Your task to perform on an android device: Open the phone app and click the voicemail tab. Image 0: 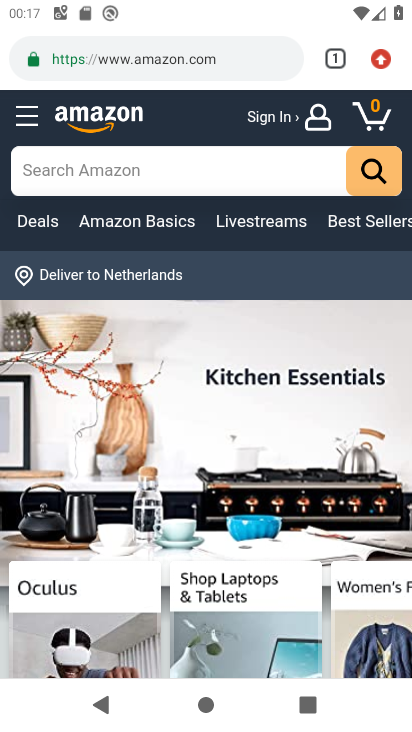
Step 0: press home button
Your task to perform on an android device: Open the phone app and click the voicemail tab. Image 1: 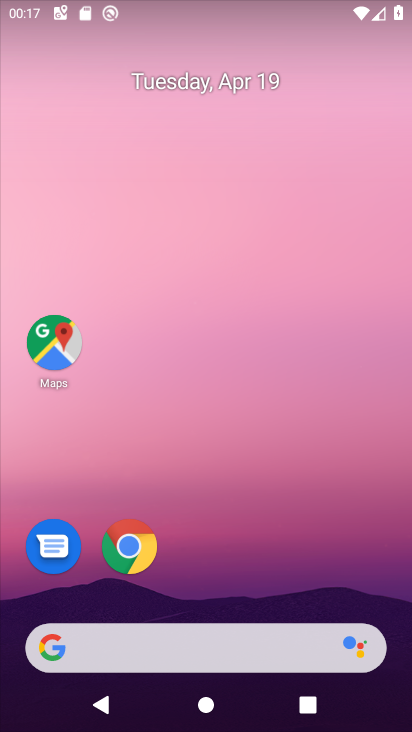
Step 1: drag from (212, 591) to (229, 75)
Your task to perform on an android device: Open the phone app and click the voicemail tab. Image 2: 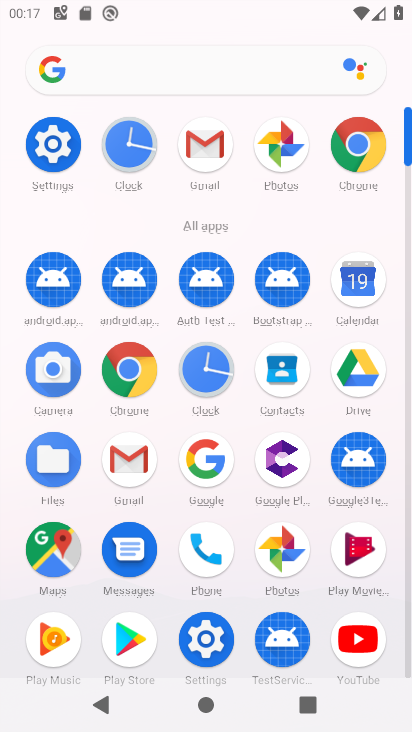
Step 2: click (206, 539)
Your task to perform on an android device: Open the phone app and click the voicemail tab. Image 3: 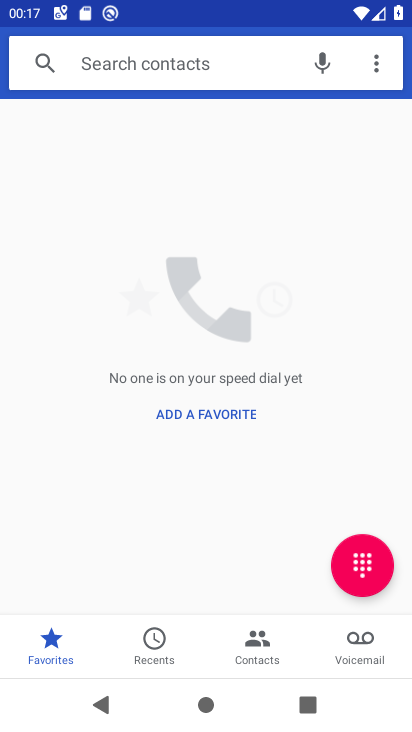
Step 3: click (360, 632)
Your task to perform on an android device: Open the phone app and click the voicemail tab. Image 4: 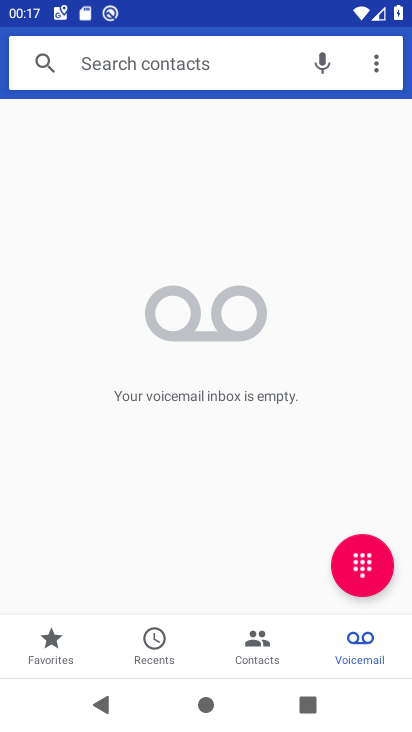
Step 4: task complete